Your task to perform on an android device: turn off translation in the chrome app Image 0: 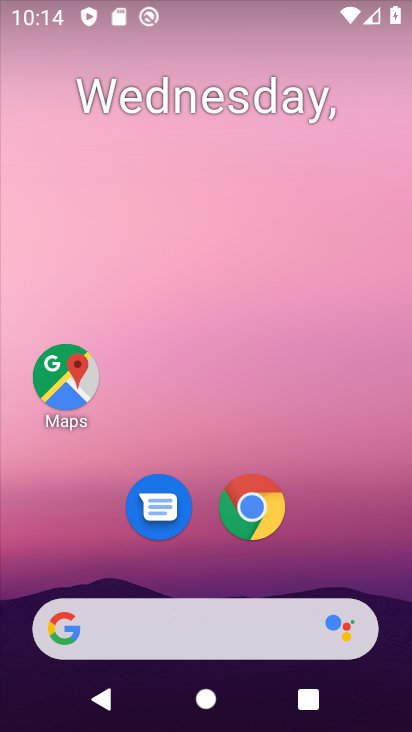
Step 0: drag from (249, 647) to (307, 53)
Your task to perform on an android device: turn off translation in the chrome app Image 1: 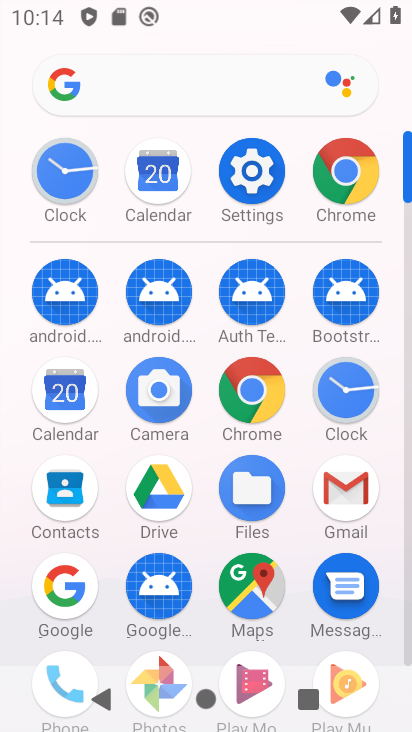
Step 1: click (335, 171)
Your task to perform on an android device: turn off translation in the chrome app Image 2: 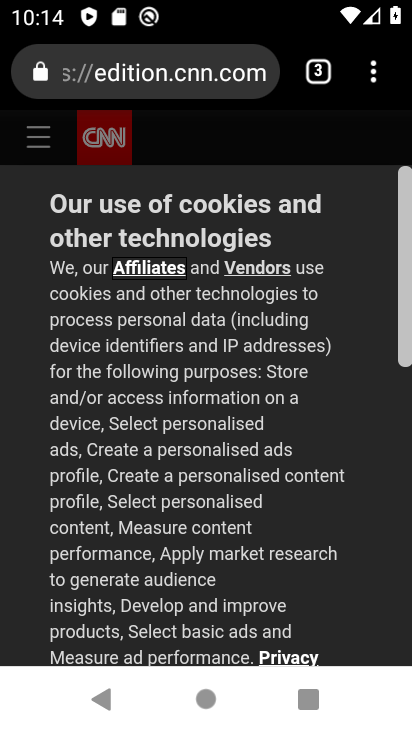
Step 2: drag from (265, 408) to (299, 136)
Your task to perform on an android device: turn off translation in the chrome app Image 3: 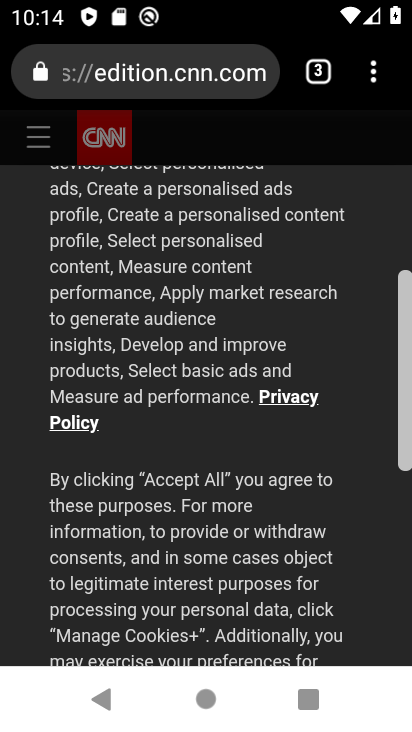
Step 3: drag from (164, 529) to (196, 216)
Your task to perform on an android device: turn off translation in the chrome app Image 4: 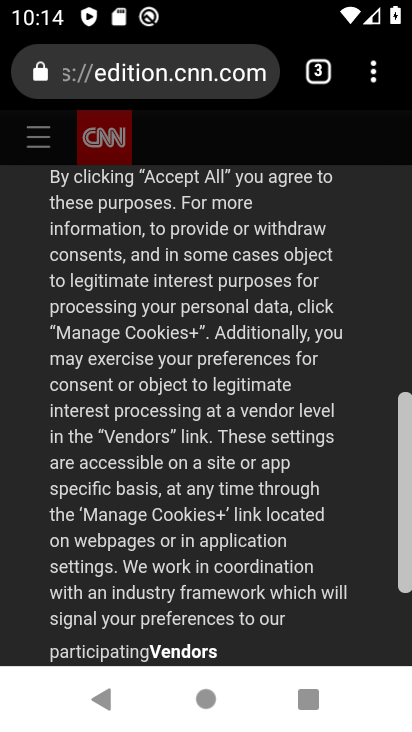
Step 4: drag from (172, 569) to (223, 256)
Your task to perform on an android device: turn off translation in the chrome app Image 5: 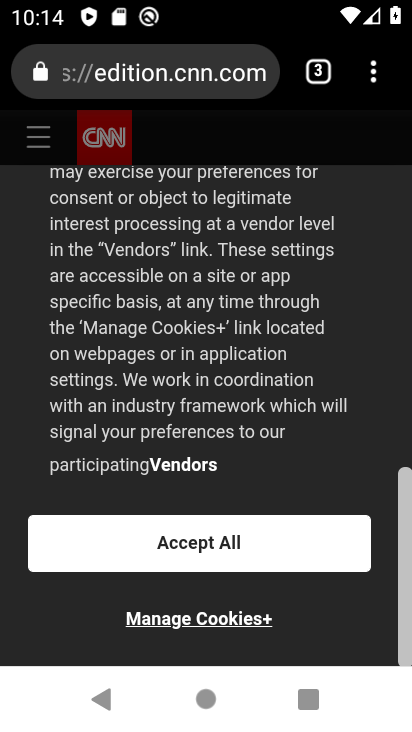
Step 5: click (189, 546)
Your task to perform on an android device: turn off translation in the chrome app Image 6: 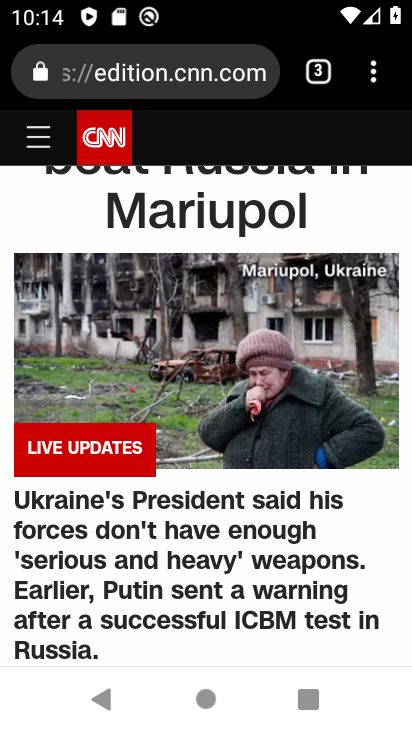
Step 6: click (382, 76)
Your task to perform on an android device: turn off translation in the chrome app Image 7: 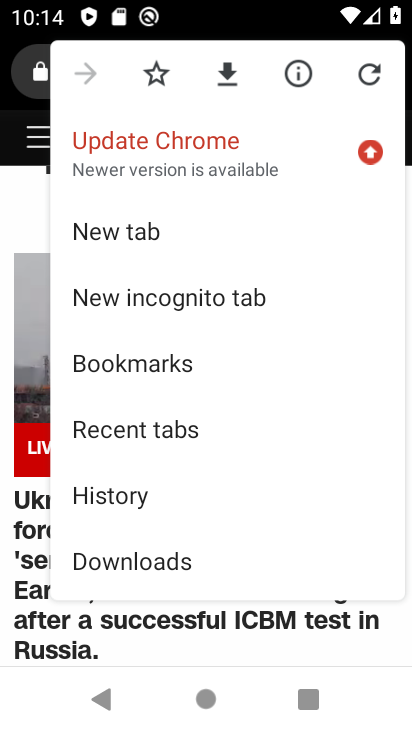
Step 7: drag from (196, 443) to (286, 153)
Your task to perform on an android device: turn off translation in the chrome app Image 8: 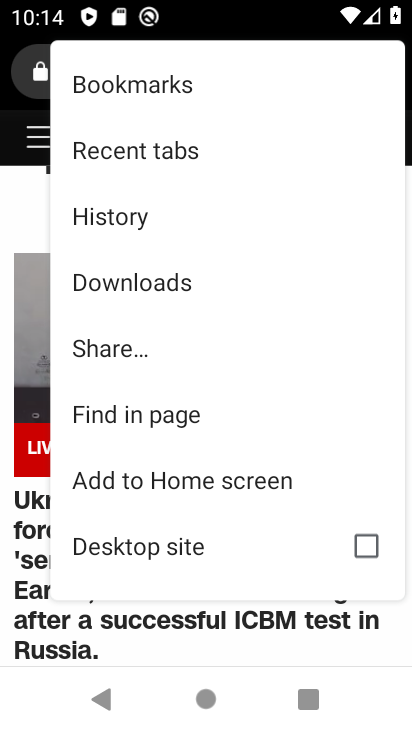
Step 8: drag from (129, 535) to (263, 307)
Your task to perform on an android device: turn off translation in the chrome app Image 9: 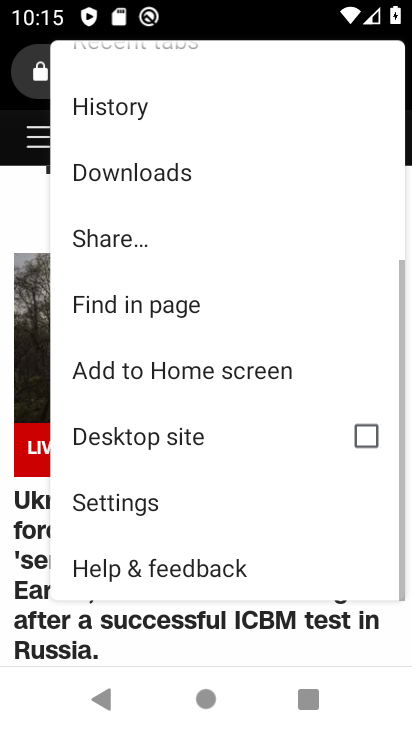
Step 9: click (151, 508)
Your task to perform on an android device: turn off translation in the chrome app Image 10: 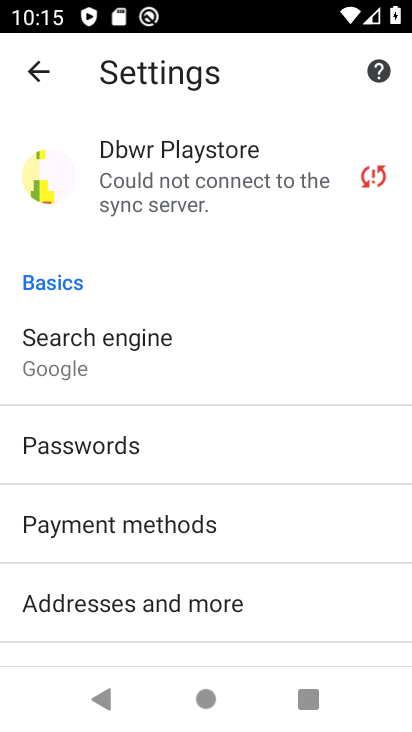
Step 10: drag from (166, 519) to (265, 231)
Your task to perform on an android device: turn off translation in the chrome app Image 11: 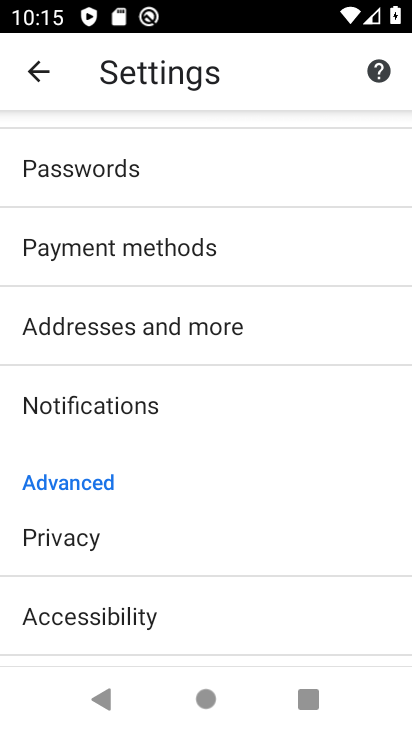
Step 11: drag from (127, 573) to (187, 374)
Your task to perform on an android device: turn off translation in the chrome app Image 12: 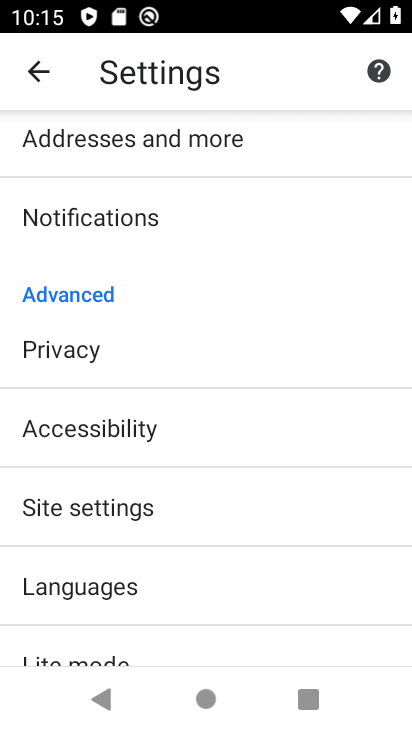
Step 12: click (57, 597)
Your task to perform on an android device: turn off translation in the chrome app Image 13: 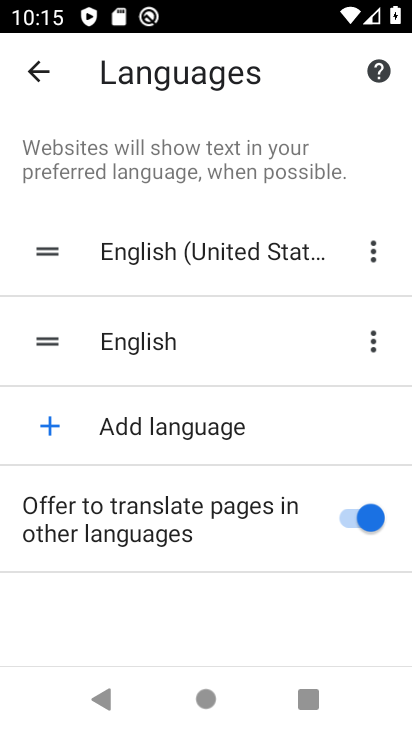
Step 13: click (222, 506)
Your task to perform on an android device: turn off translation in the chrome app Image 14: 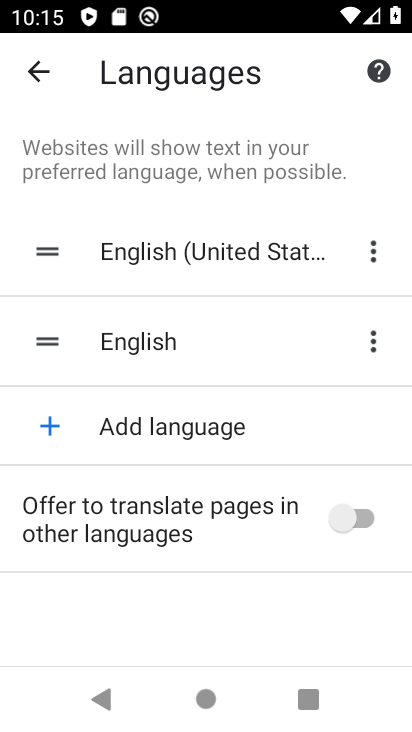
Step 14: task complete